Your task to perform on an android device: toggle sleep mode Image 0: 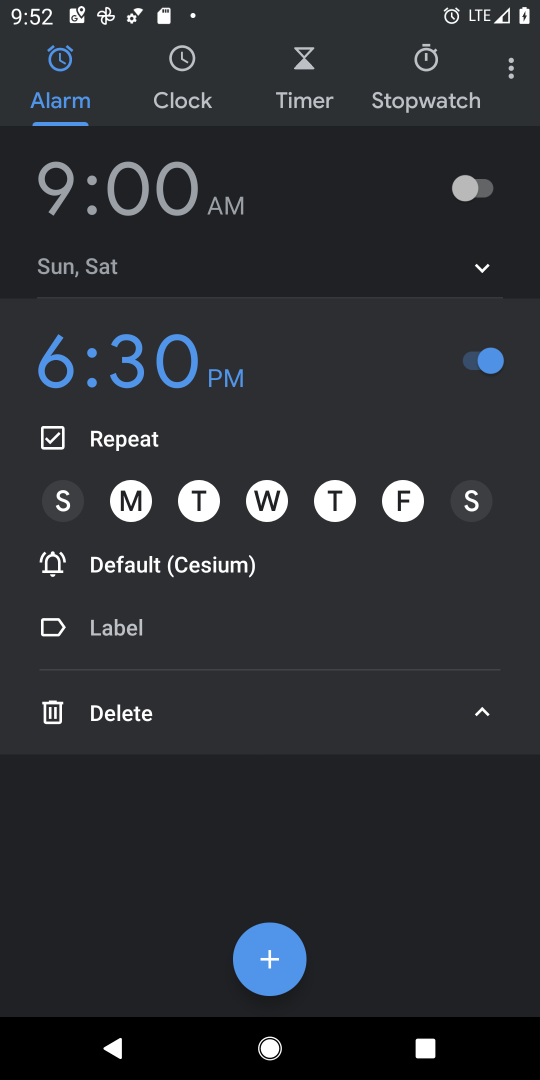
Step 0: press home button
Your task to perform on an android device: toggle sleep mode Image 1: 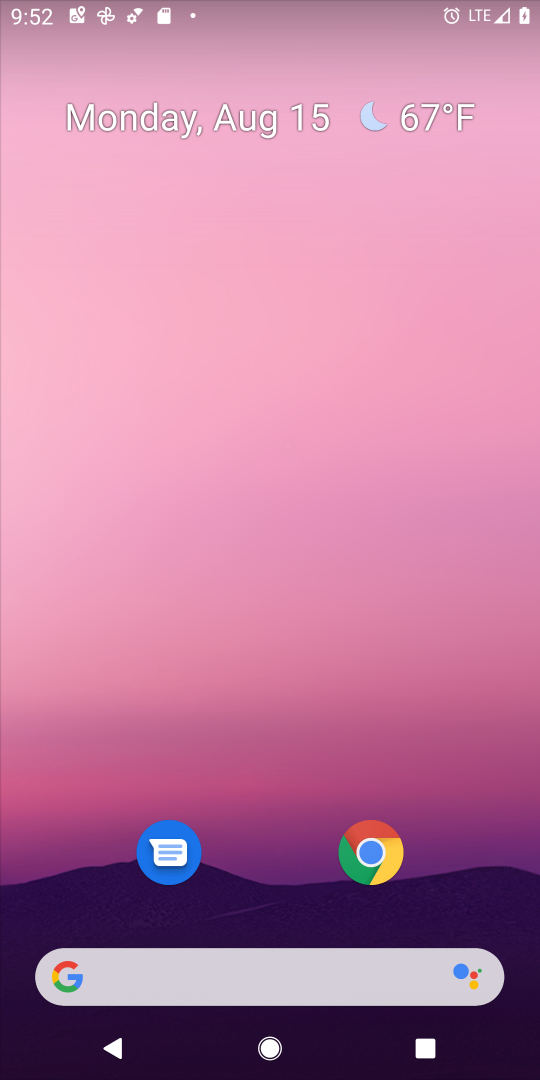
Step 1: drag from (237, 990) to (287, 109)
Your task to perform on an android device: toggle sleep mode Image 2: 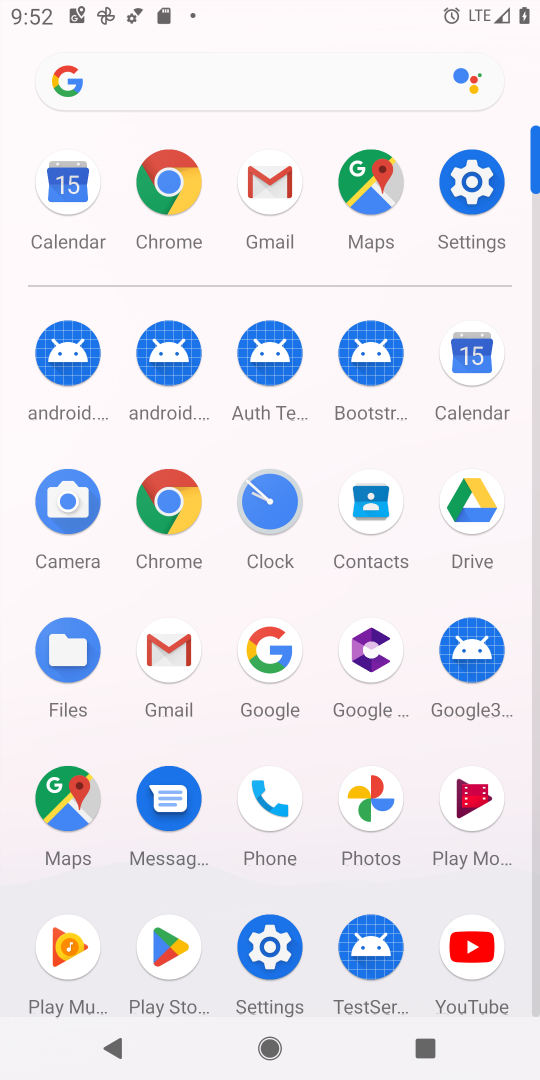
Step 2: click (471, 183)
Your task to perform on an android device: toggle sleep mode Image 3: 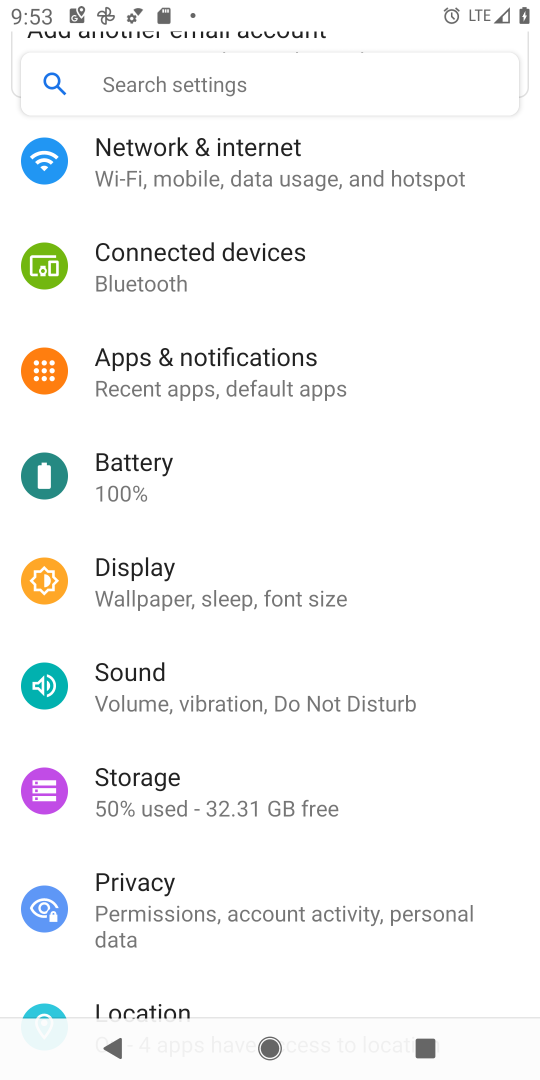
Step 3: click (171, 603)
Your task to perform on an android device: toggle sleep mode Image 4: 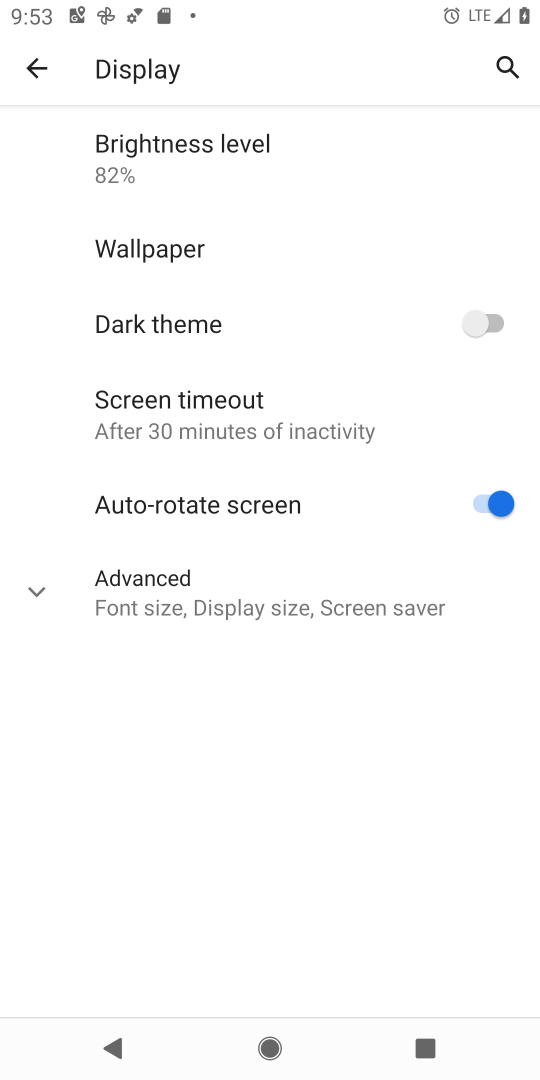
Step 4: click (262, 445)
Your task to perform on an android device: toggle sleep mode Image 5: 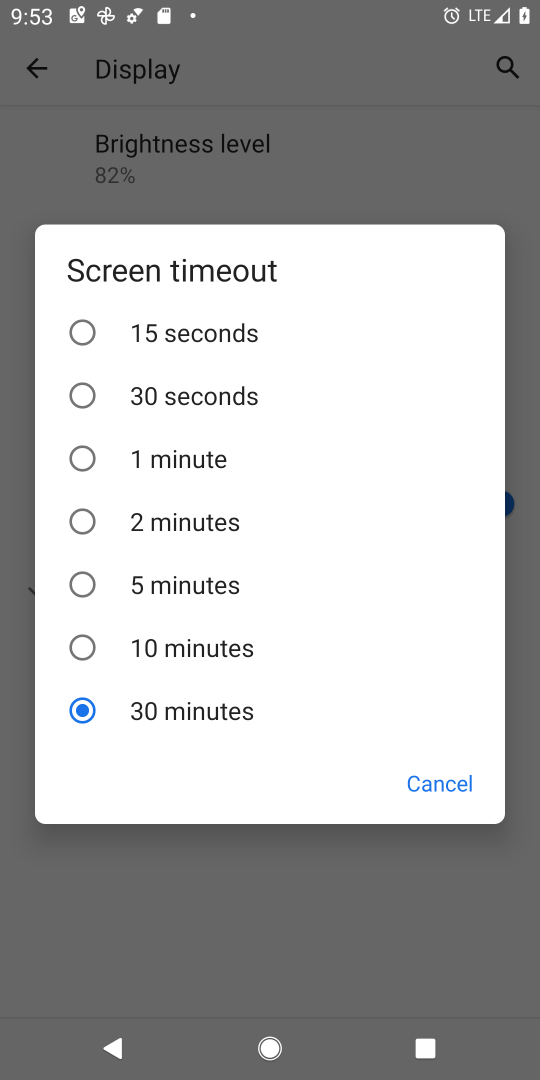
Step 5: click (80, 588)
Your task to perform on an android device: toggle sleep mode Image 6: 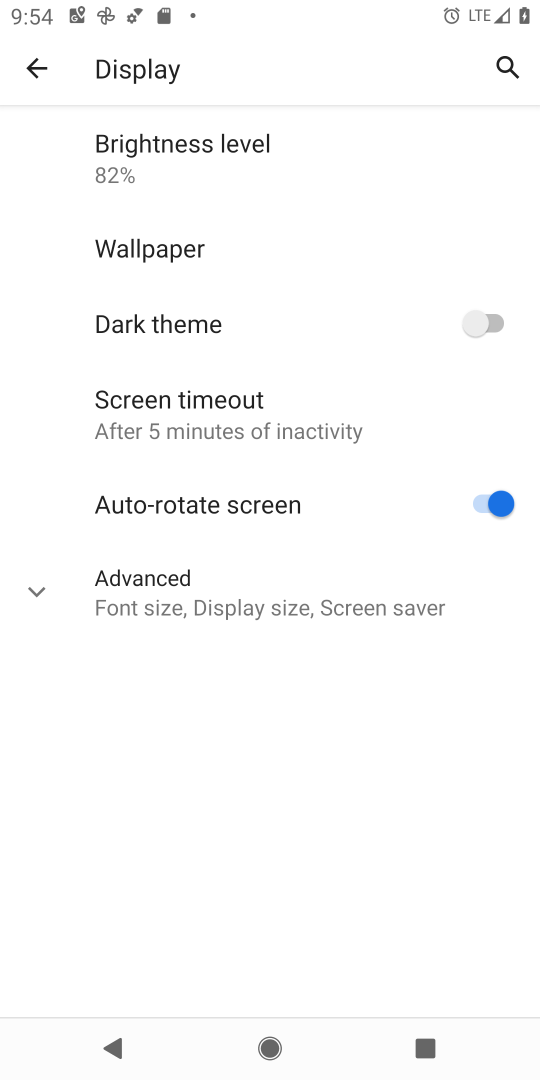
Step 6: task complete